Your task to perform on an android device: Show me recent news Image 0: 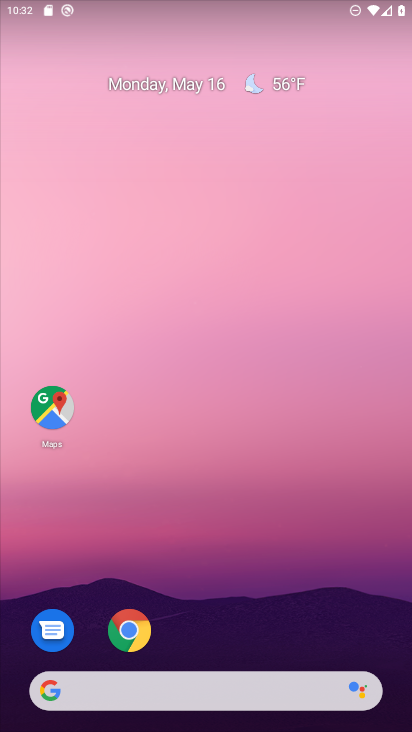
Step 0: drag from (211, 632) to (221, 163)
Your task to perform on an android device: Show me recent news Image 1: 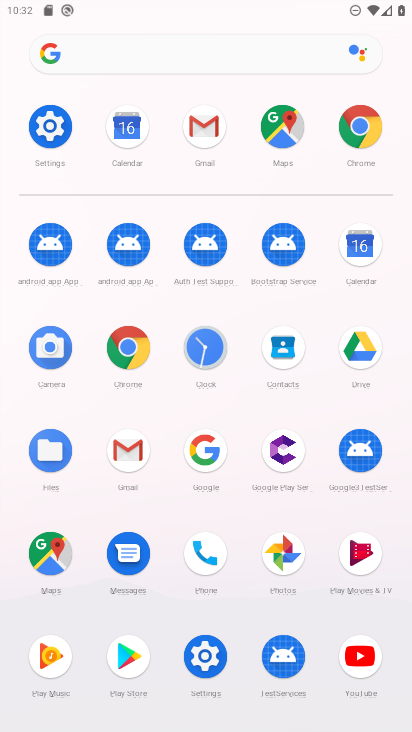
Step 1: click (197, 54)
Your task to perform on an android device: Show me recent news Image 2: 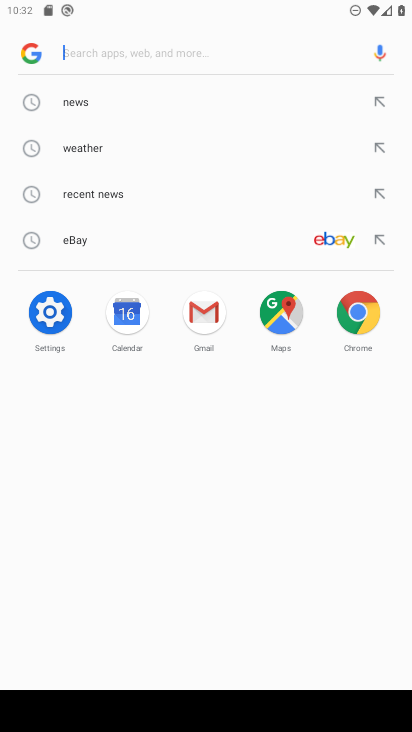
Step 2: type "recent news"
Your task to perform on an android device: Show me recent news Image 3: 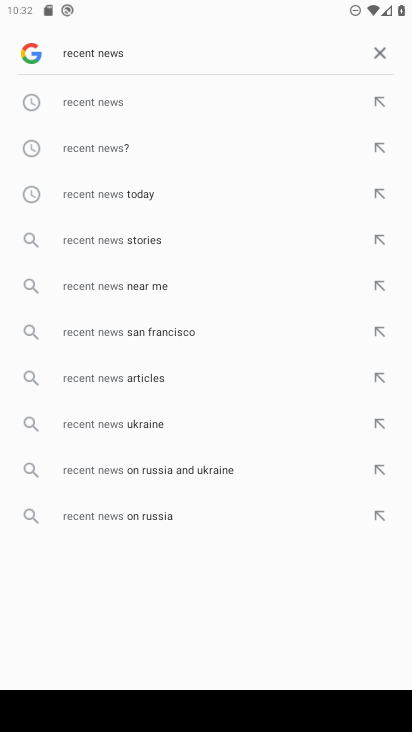
Step 3: click (126, 102)
Your task to perform on an android device: Show me recent news Image 4: 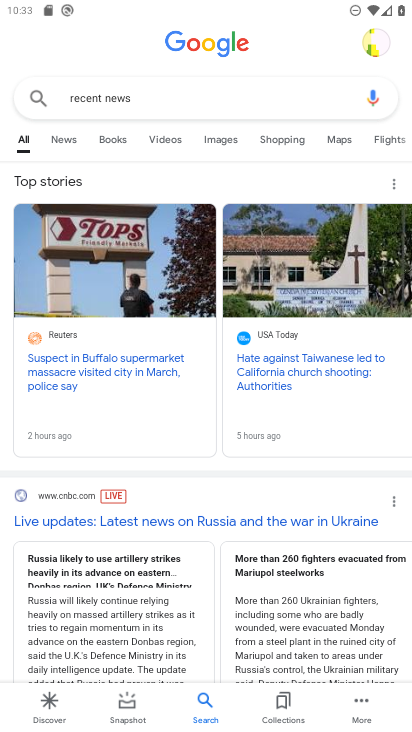
Step 4: task complete